Your task to perform on an android device: Open ESPN.com Image 0: 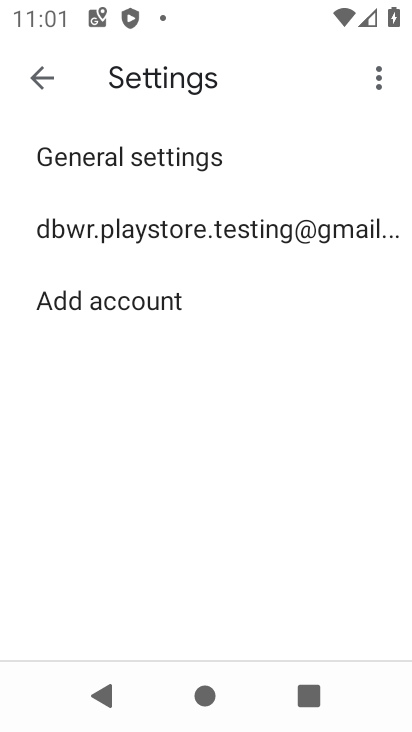
Step 0: press home button
Your task to perform on an android device: Open ESPN.com Image 1: 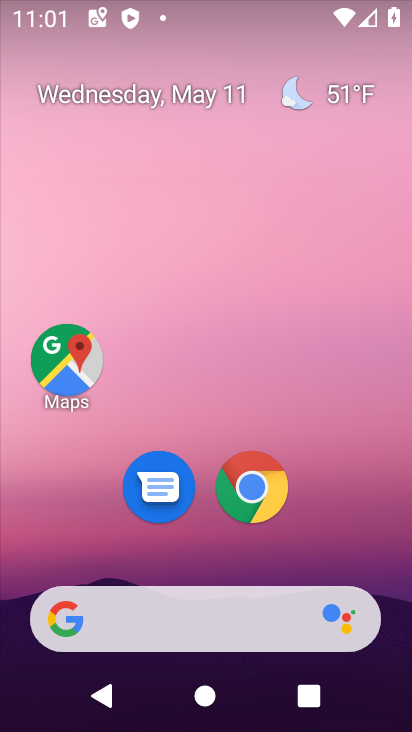
Step 1: click (255, 490)
Your task to perform on an android device: Open ESPN.com Image 2: 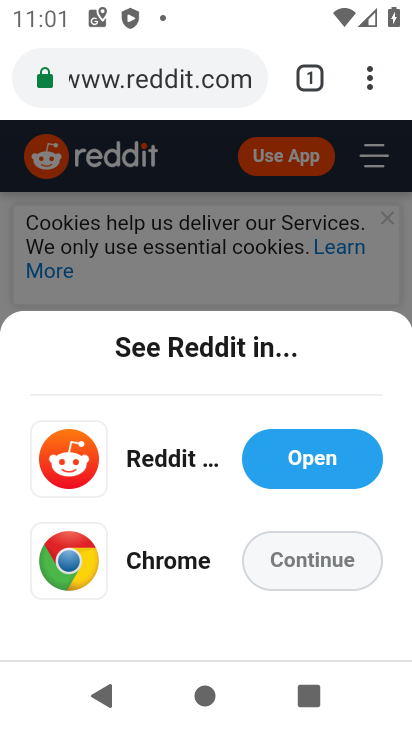
Step 2: click (172, 83)
Your task to perform on an android device: Open ESPN.com Image 3: 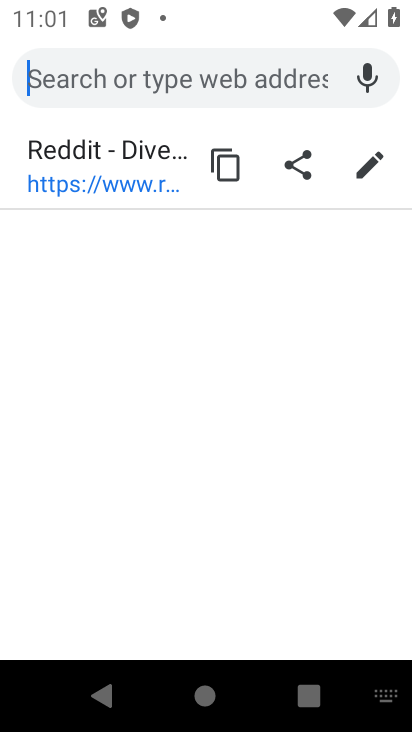
Step 3: type "espn.com"
Your task to perform on an android device: Open ESPN.com Image 4: 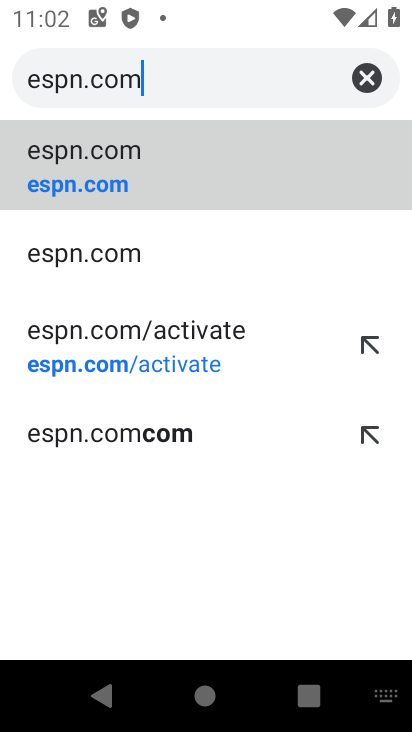
Step 4: click (223, 164)
Your task to perform on an android device: Open ESPN.com Image 5: 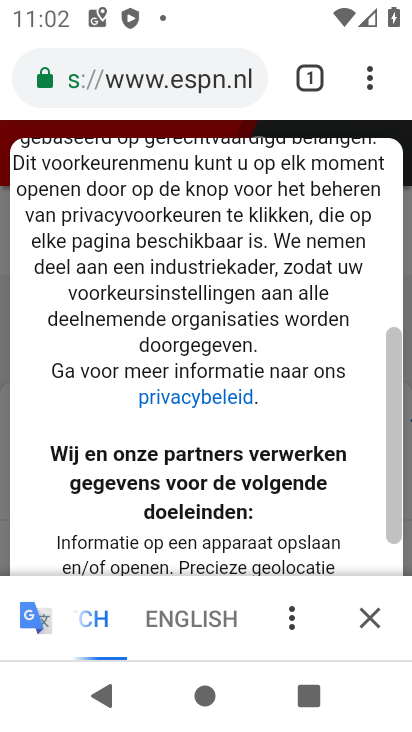
Step 5: task complete